Your task to perform on an android device: open device folders in google photos Image 0: 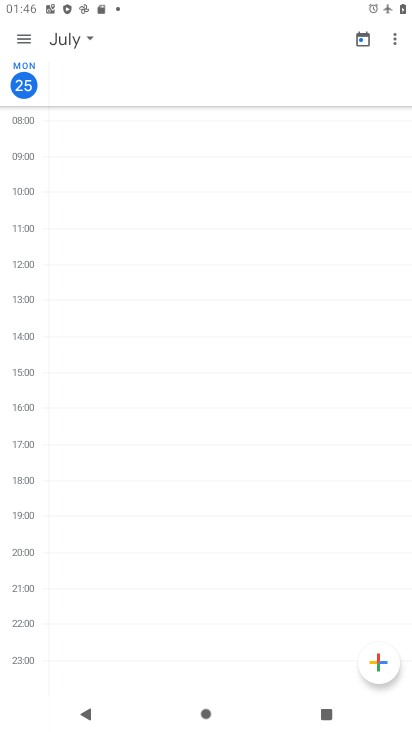
Step 0: press home button
Your task to perform on an android device: open device folders in google photos Image 1: 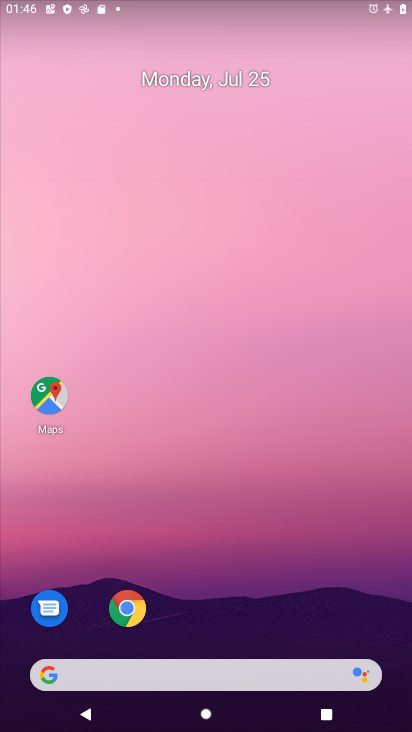
Step 1: drag from (206, 659) to (216, 15)
Your task to perform on an android device: open device folders in google photos Image 2: 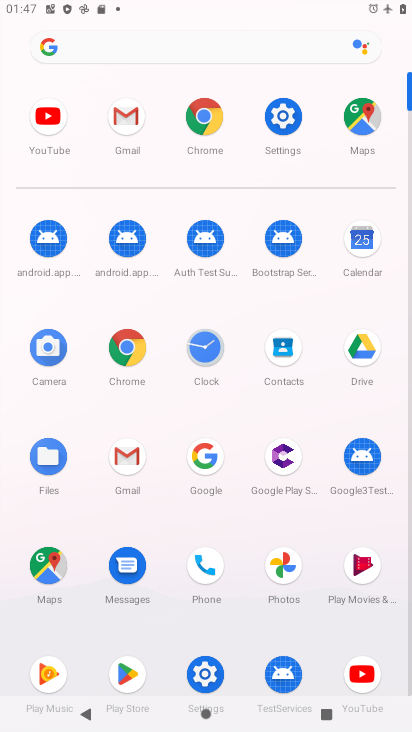
Step 2: click (291, 563)
Your task to perform on an android device: open device folders in google photos Image 3: 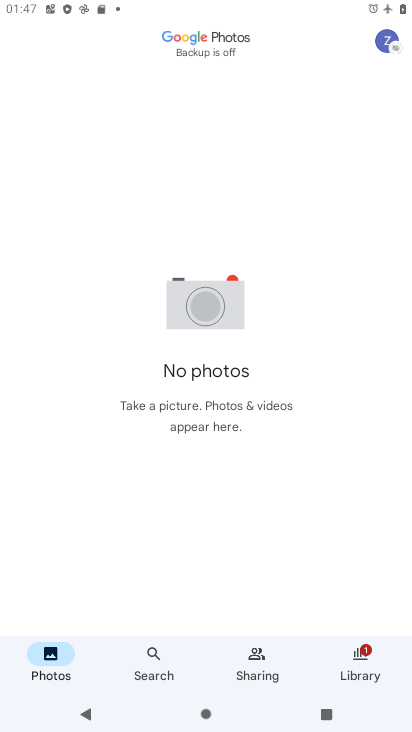
Step 3: click (359, 661)
Your task to perform on an android device: open device folders in google photos Image 4: 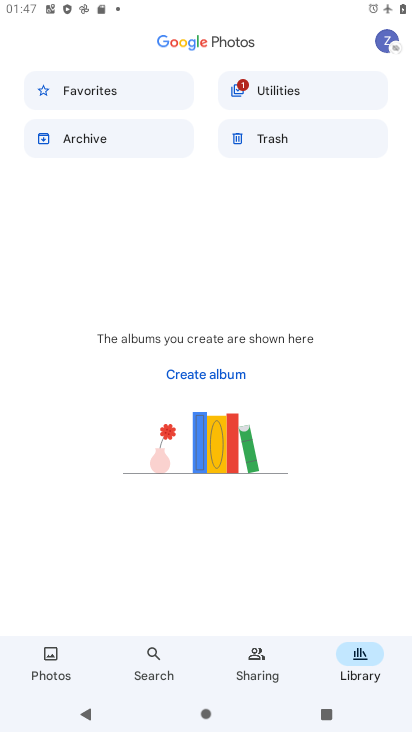
Step 4: click (382, 42)
Your task to perform on an android device: open device folders in google photos Image 5: 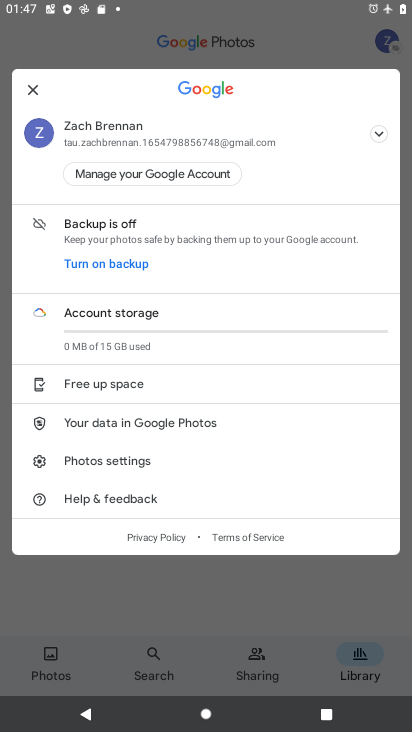
Step 5: click (115, 459)
Your task to perform on an android device: open device folders in google photos Image 6: 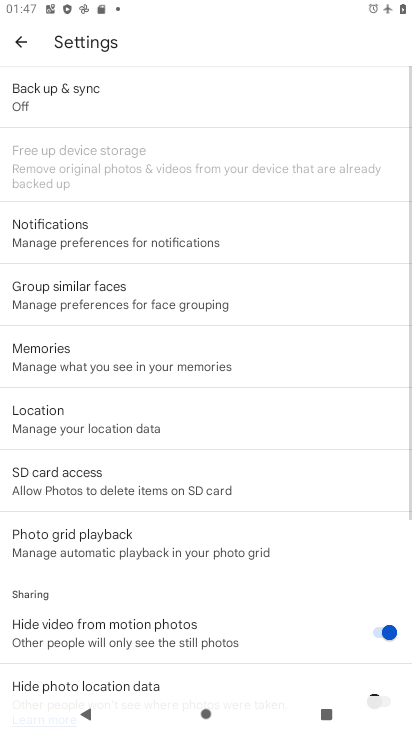
Step 6: task complete